Your task to perform on an android device: open chrome privacy settings Image 0: 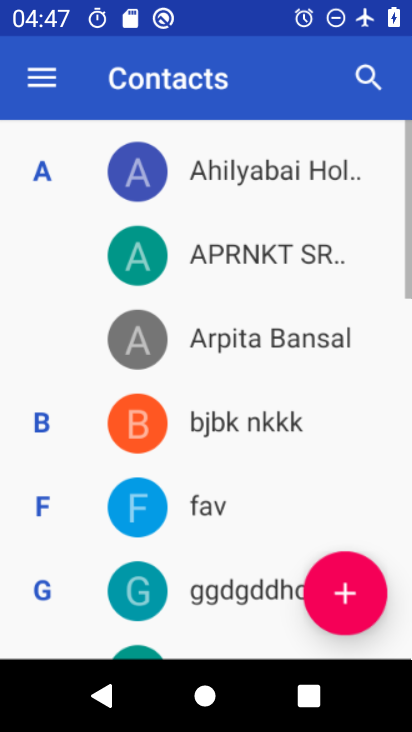
Step 0: drag from (222, 552) to (267, 0)
Your task to perform on an android device: open chrome privacy settings Image 1: 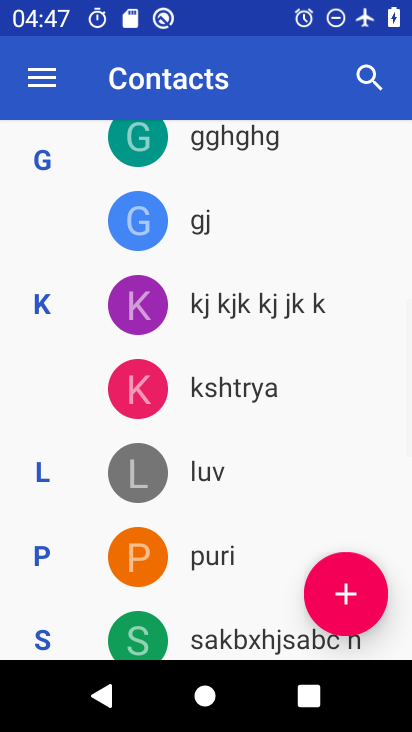
Step 1: press back button
Your task to perform on an android device: open chrome privacy settings Image 2: 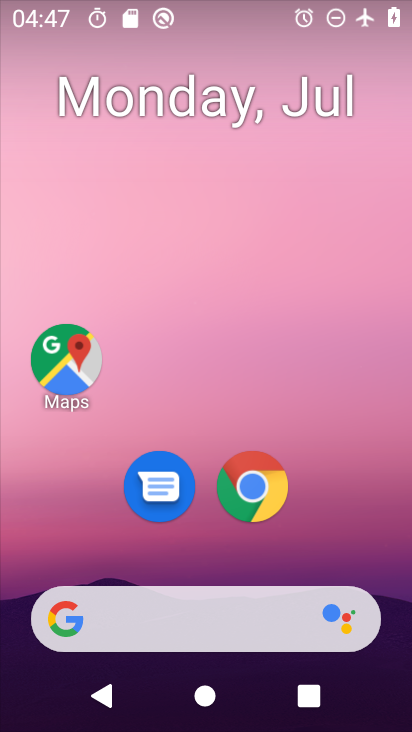
Step 2: click (249, 488)
Your task to perform on an android device: open chrome privacy settings Image 3: 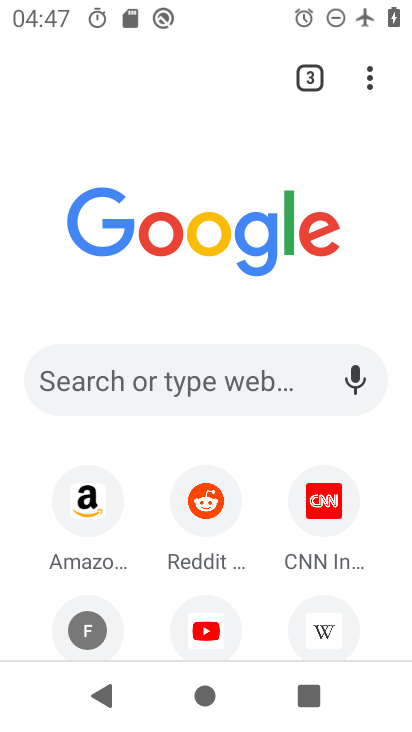
Step 3: drag from (371, 69) to (141, 537)
Your task to perform on an android device: open chrome privacy settings Image 4: 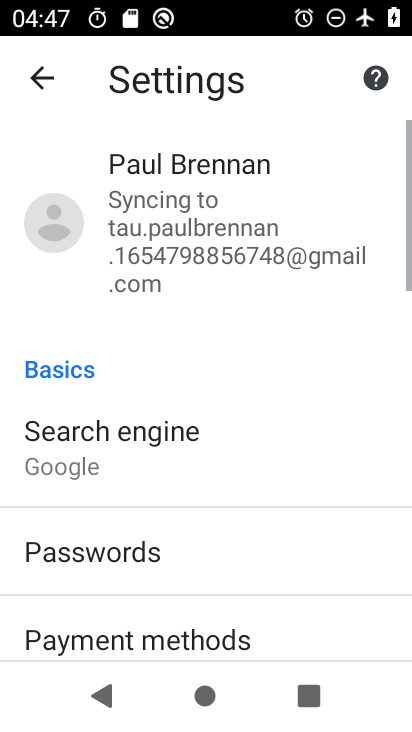
Step 4: drag from (155, 526) to (205, 53)
Your task to perform on an android device: open chrome privacy settings Image 5: 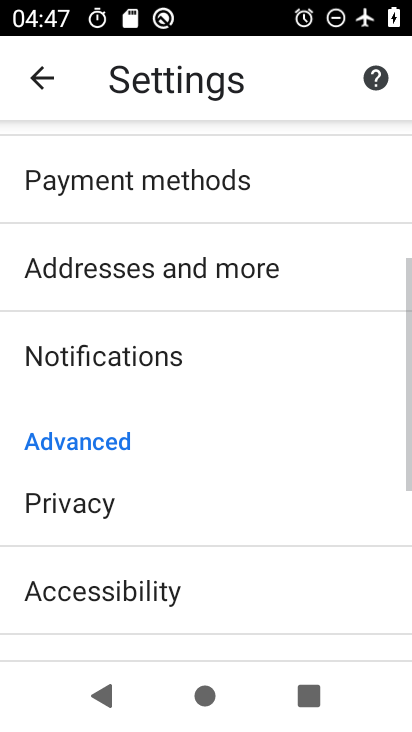
Step 5: click (151, 501)
Your task to perform on an android device: open chrome privacy settings Image 6: 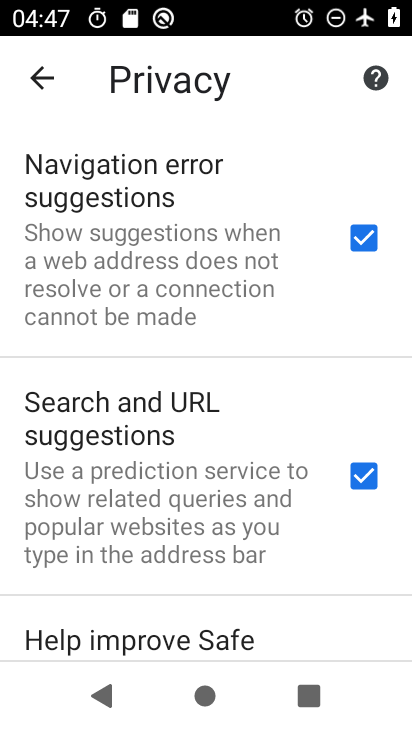
Step 6: task complete